Your task to perform on an android device: Open calendar and show me the third week of next month Image 0: 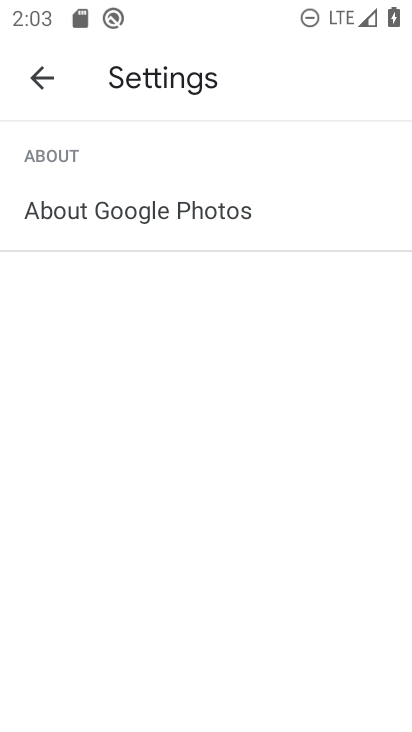
Step 0: press home button
Your task to perform on an android device: Open calendar and show me the third week of next month Image 1: 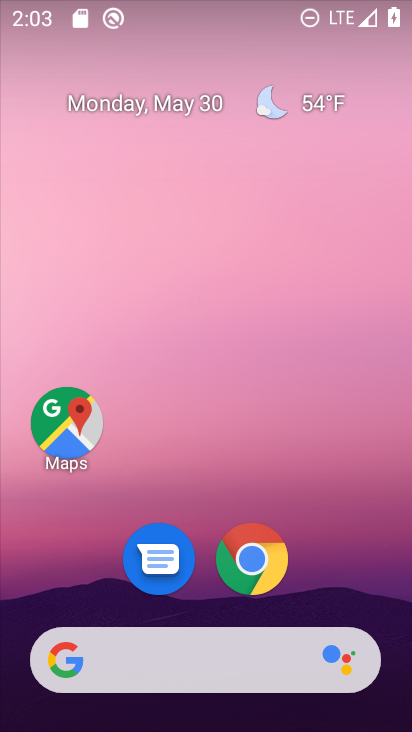
Step 1: drag from (329, 601) to (347, 53)
Your task to perform on an android device: Open calendar and show me the third week of next month Image 2: 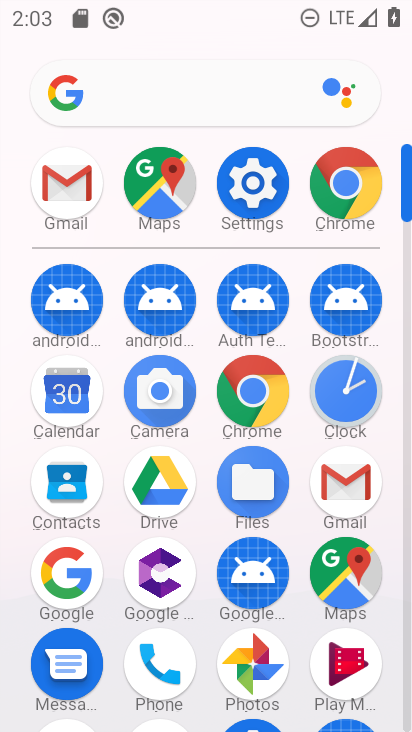
Step 2: click (58, 402)
Your task to perform on an android device: Open calendar and show me the third week of next month Image 3: 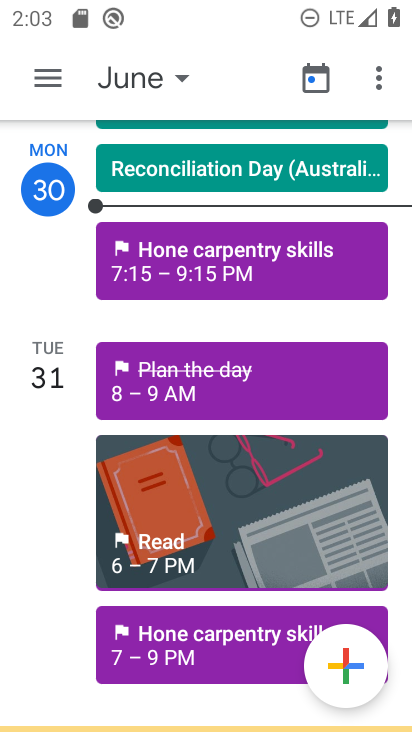
Step 3: click (140, 69)
Your task to perform on an android device: Open calendar and show me the third week of next month Image 4: 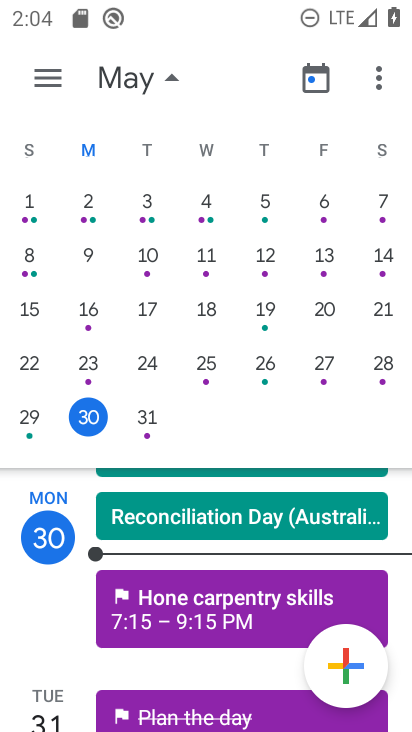
Step 4: drag from (386, 336) to (7, 318)
Your task to perform on an android device: Open calendar and show me the third week of next month Image 5: 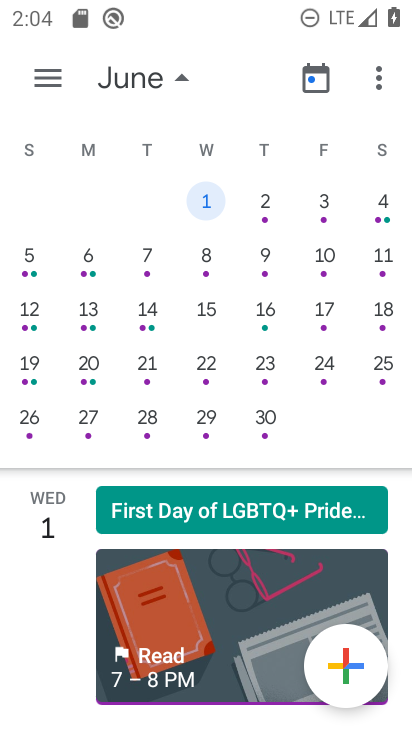
Step 5: click (33, 323)
Your task to perform on an android device: Open calendar and show me the third week of next month Image 6: 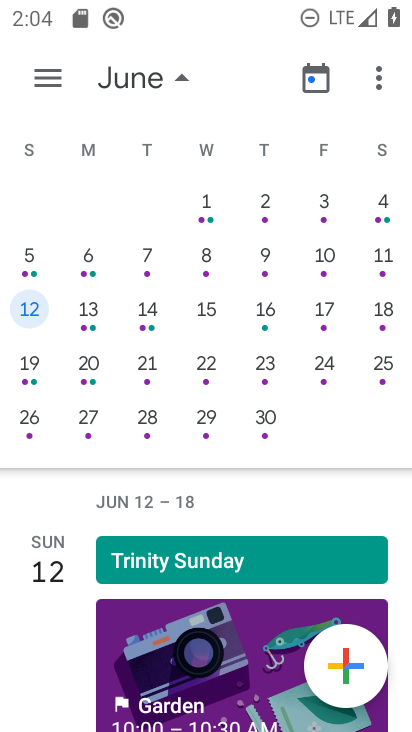
Step 6: task complete